Your task to perform on an android device: open app "Booking.com: Hotels and more" Image 0: 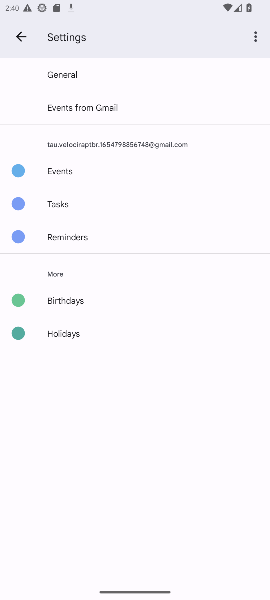
Step 0: press home button
Your task to perform on an android device: open app "Booking.com: Hotels and more" Image 1: 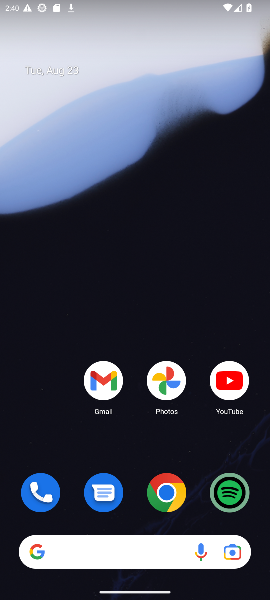
Step 1: drag from (135, 520) to (153, 61)
Your task to perform on an android device: open app "Booking.com: Hotels and more" Image 2: 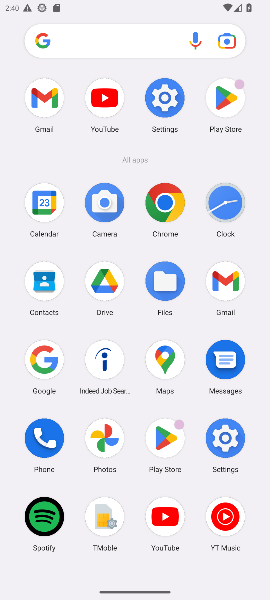
Step 2: click (223, 90)
Your task to perform on an android device: open app "Booking.com: Hotels and more" Image 3: 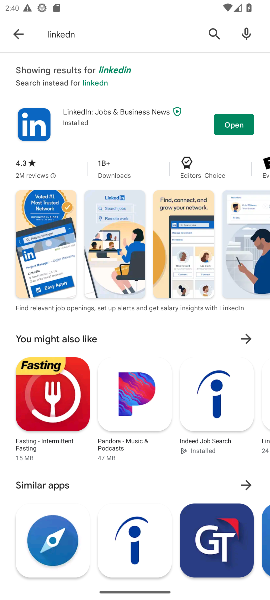
Step 3: click (204, 32)
Your task to perform on an android device: open app "Booking.com: Hotels and more" Image 4: 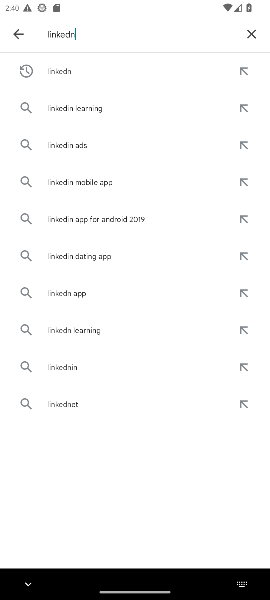
Step 4: click (251, 34)
Your task to perform on an android device: open app "Booking.com: Hotels and more" Image 5: 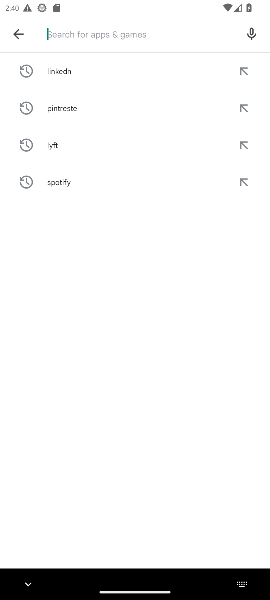
Step 5: type "booking"
Your task to perform on an android device: open app "Booking.com: Hotels and more" Image 6: 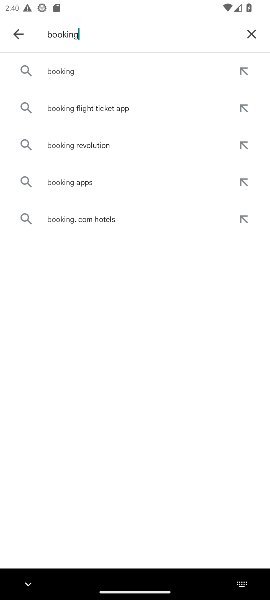
Step 6: click (90, 74)
Your task to perform on an android device: open app "Booking.com: Hotels and more" Image 7: 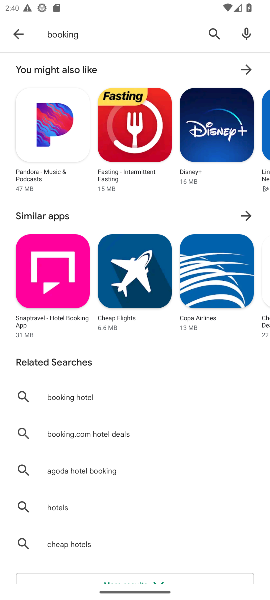
Step 7: click (205, 39)
Your task to perform on an android device: open app "Booking.com: Hotels and more" Image 8: 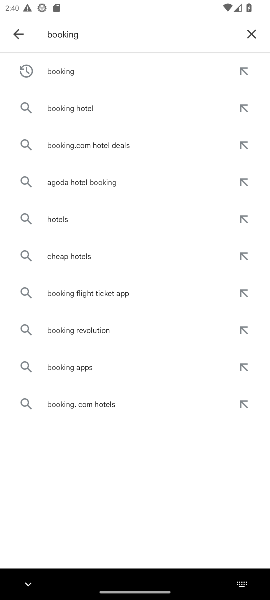
Step 8: click (257, 29)
Your task to perform on an android device: open app "Booking.com: Hotels and more" Image 9: 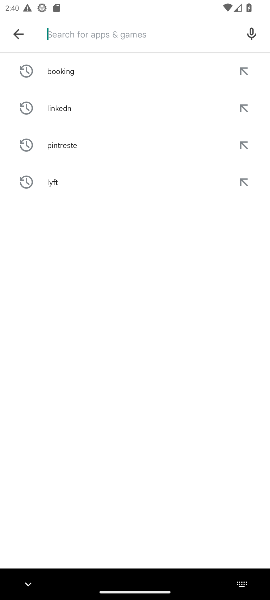
Step 9: type "booking.com"
Your task to perform on an android device: open app "Booking.com: Hotels and more" Image 10: 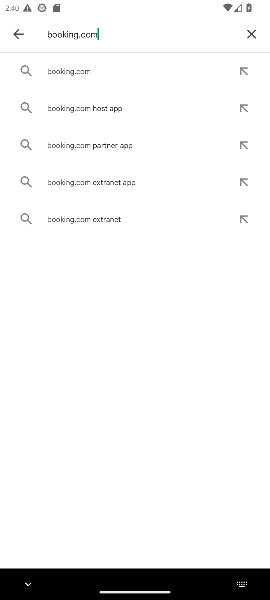
Step 10: click (56, 61)
Your task to perform on an android device: open app "Booking.com: Hotels and more" Image 11: 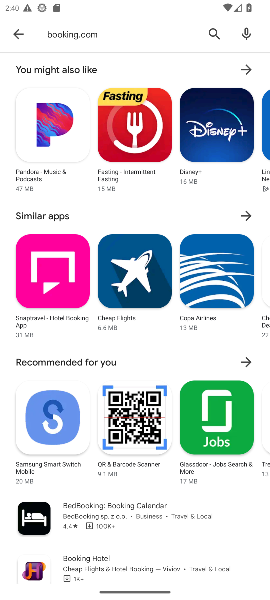
Step 11: task complete